Your task to perform on an android device: clear all cookies in the chrome app Image 0: 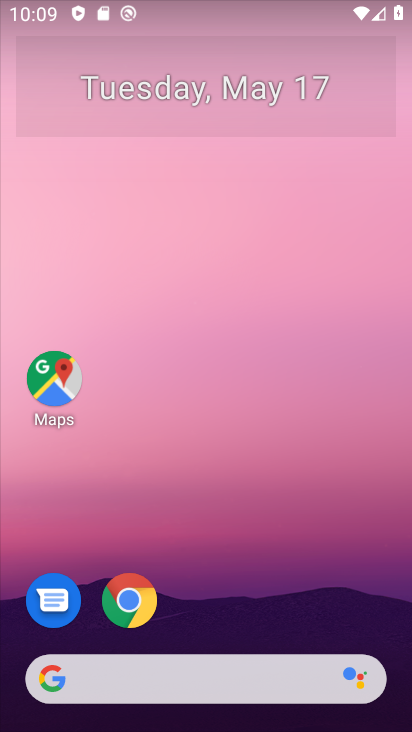
Step 0: click (137, 612)
Your task to perform on an android device: clear all cookies in the chrome app Image 1: 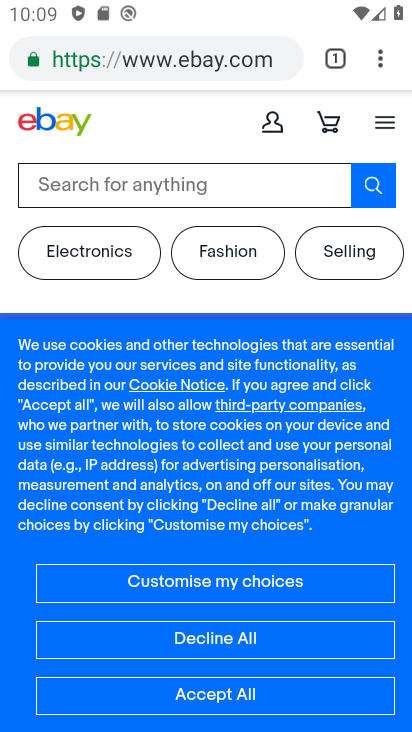
Step 1: drag from (384, 52) to (207, 326)
Your task to perform on an android device: clear all cookies in the chrome app Image 2: 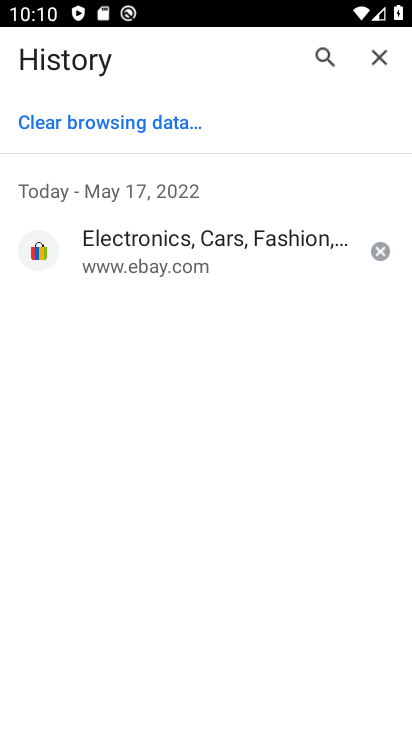
Step 2: click (161, 117)
Your task to perform on an android device: clear all cookies in the chrome app Image 3: 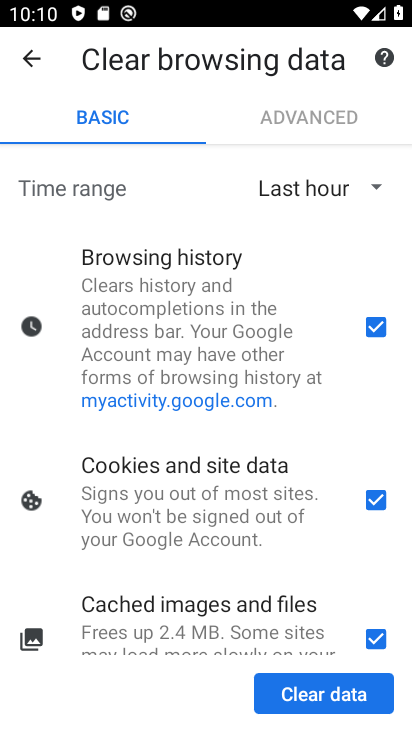
Step 3: click (381, 323)
Your task to perform on an android device: clear all cookies in the chrome app Image 4: 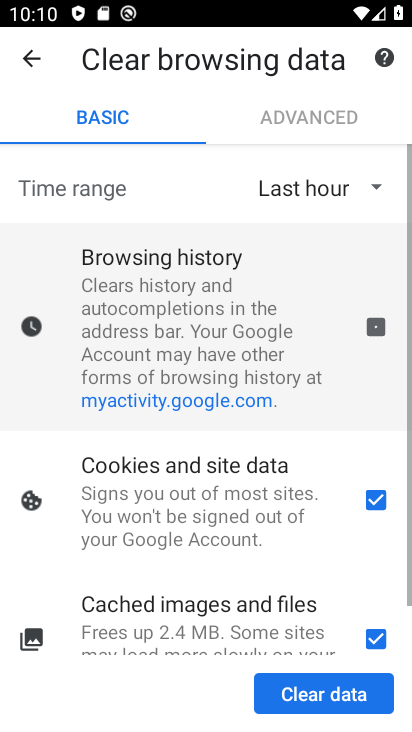
Step 4: click (384, 629)
Your task to perform on an android device: clear all cookies in the chrome app Image 5: 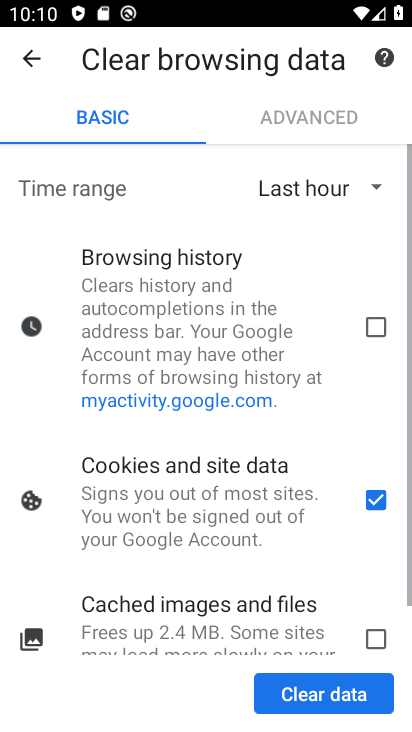
Step 5: click (334, 688)
Your task to perform on an android device: clear all cookies in the chrome app Image 6: 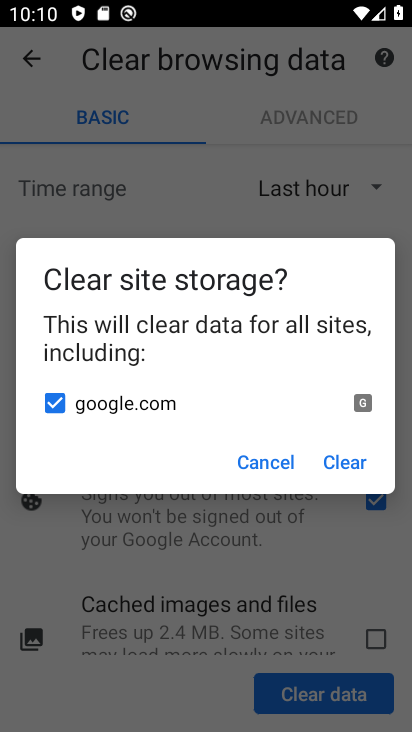
Step 6: click (344, 467)
Your task to perform on an android device: clear all cookies in the chrome app Image 7: 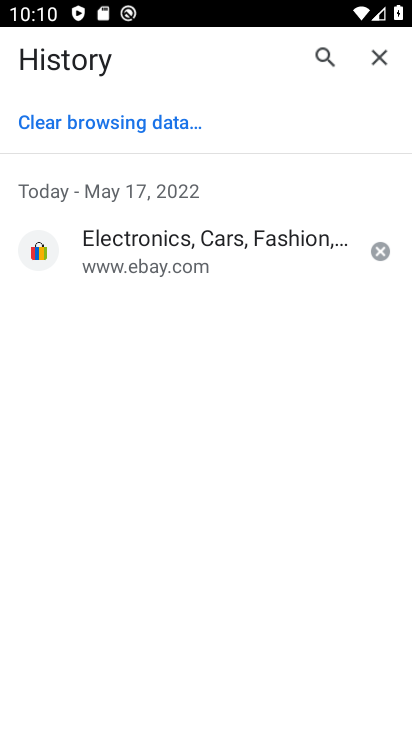
Step 7: task complete